Your task to perform on an android device: Open Wikipedia Image 0: 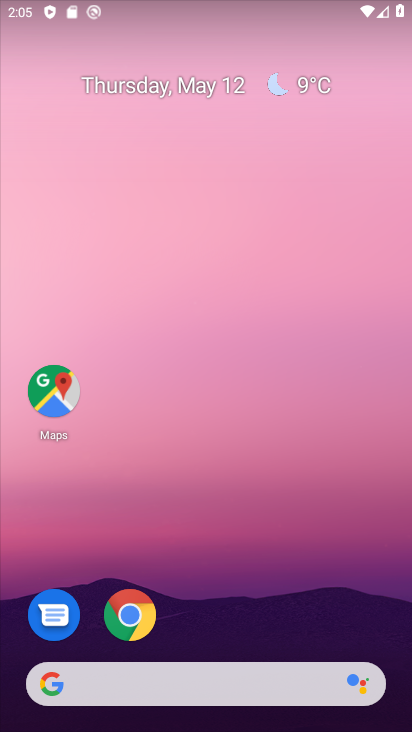
Step 0: click (147, 615)
Your task to perform on an android device: Open Wikipedia Image 1: 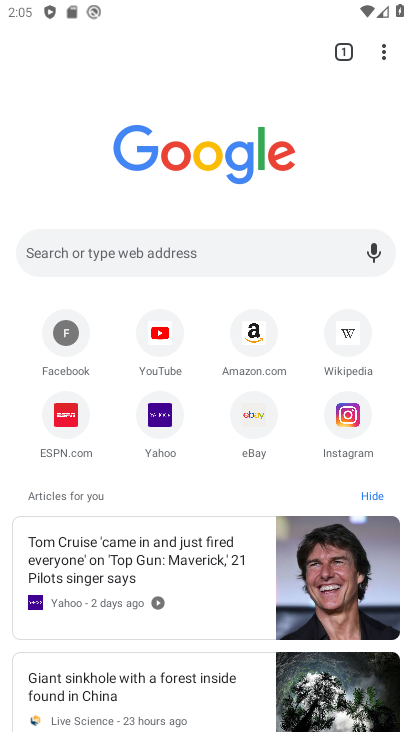
Step 1: click (350, 337)
Your task to perform on an android device: Open Wikipedia Image 2: 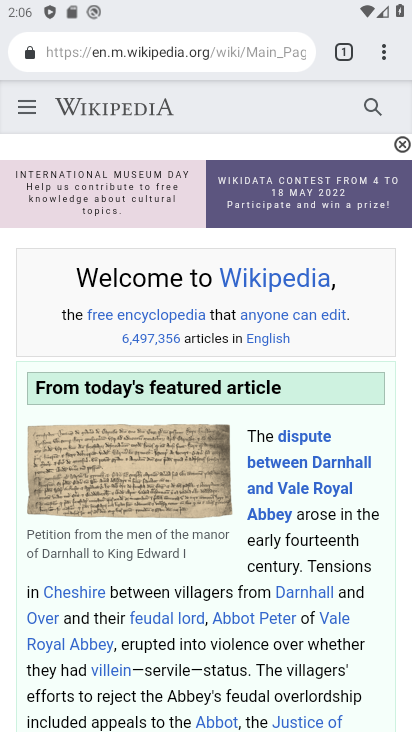
Step 2: task complete